Your task to perform on an android device: Turn off the flashlight Image 0: 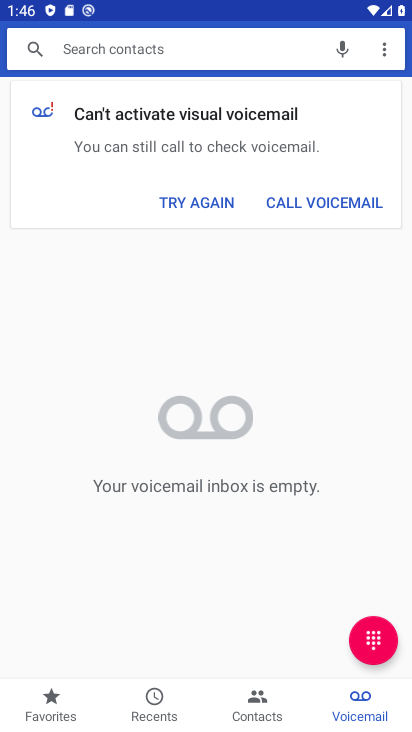
Step 0: press home button
Your task to perform on an android device: Turn off the flashlight Image 1: 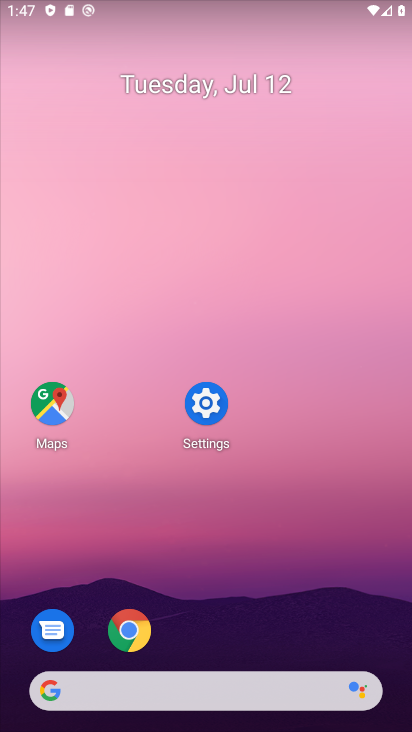
Step 1: click (195, 400)
Your task to perform on an android device: Turn off the flashlight Image 2: 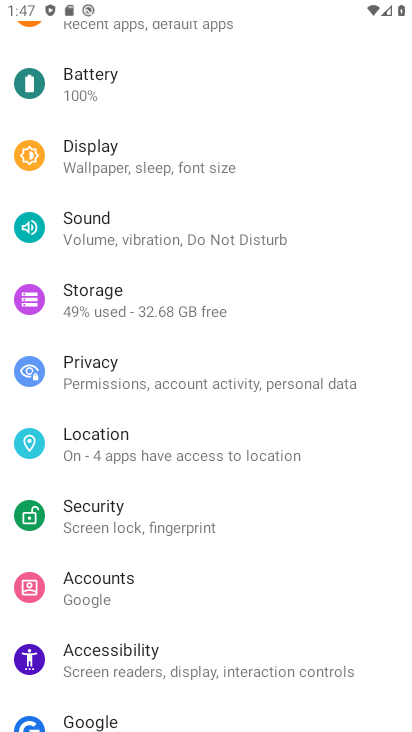
Step 2: click (92, 148)
Your task to perform on an android device: Turn off the flashlight Image 3: 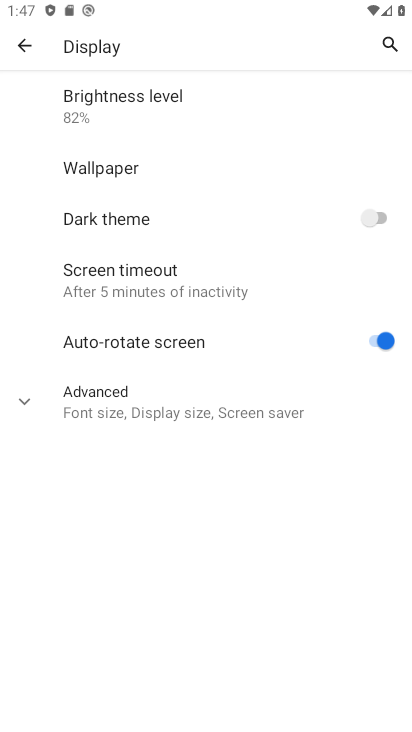
Step 3: click (20, 401)
Your task to perform on an android device: Turn off the flashlight Image 4: 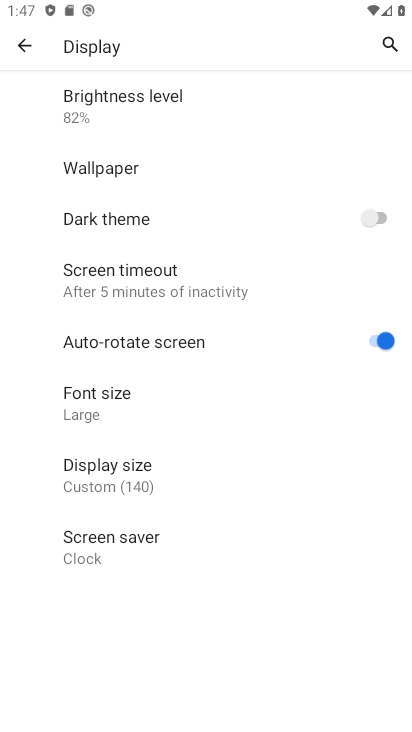
Step 4: click (82, 474)
Your task to perform on an android device: Turn off the flashlight Image 5: 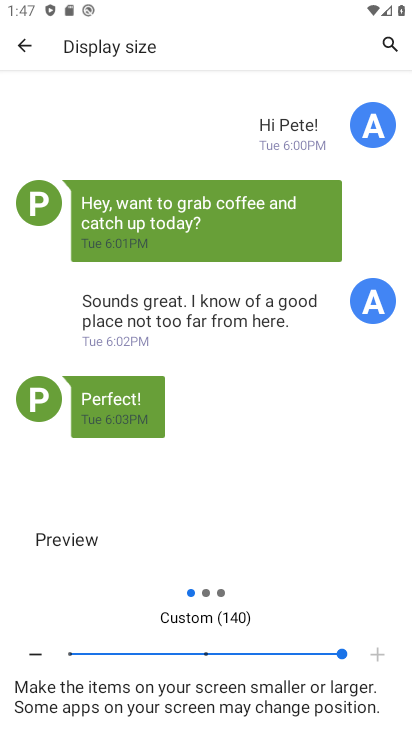
Step 5: click (201, 655)
Your task to perform on an android device: Turn off the flashlight Image 6: 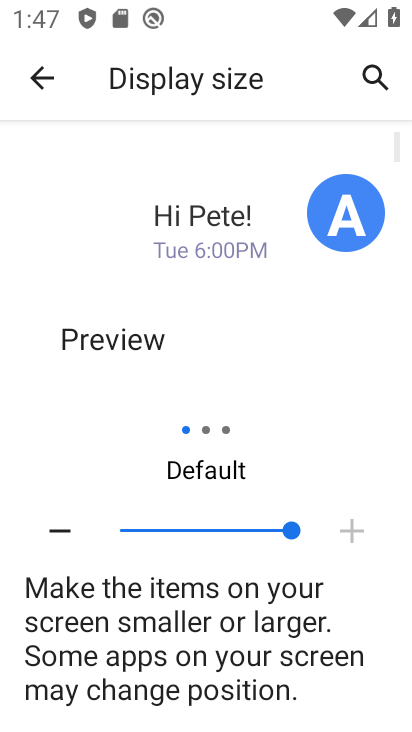
Step 6: click (169, 654)
Your task to perform on an android device: Turn off the flashlight Image 7: 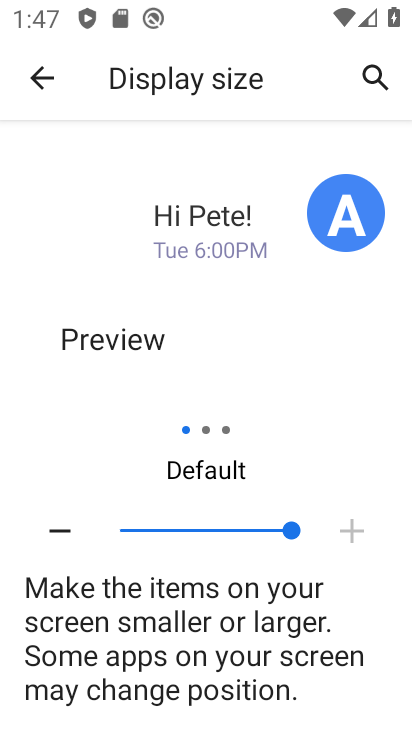
Step 7: click (240, 528)
Your task to perform on an android device: Turn off the flashlight Image 8: 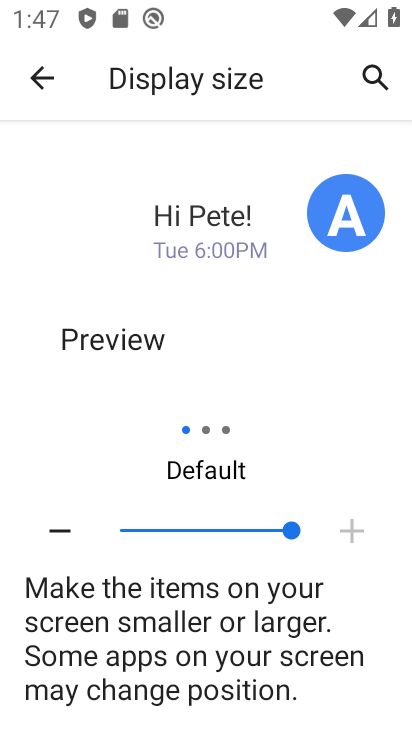
Step 8: click (292, 529)
Your task to perform on an android device: Turn off the flashlight Image 9: 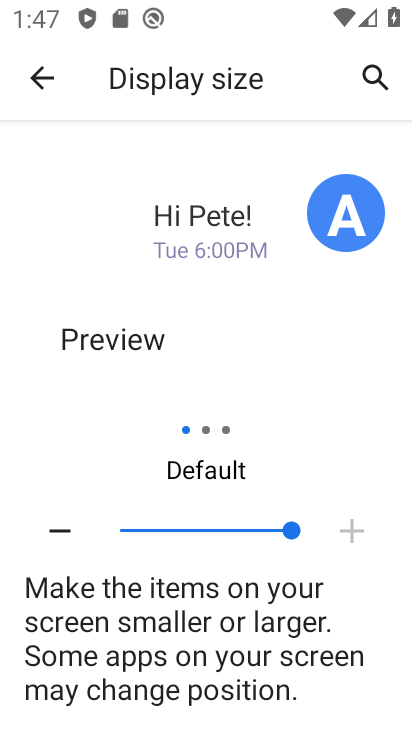
Step 9: drag from (287, 531) to (233, 530)
Your task to perform on an android device: Turn off the flashlight Image 10: 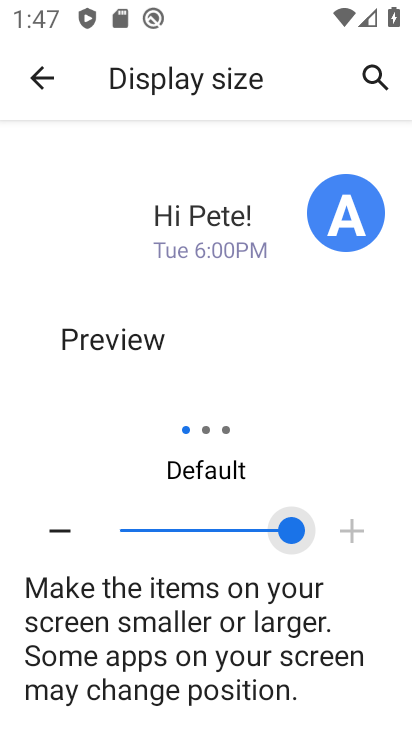
Step 10: click (233, 530)
Your task to perform on an android device: Turn off the flashlight Image 11: 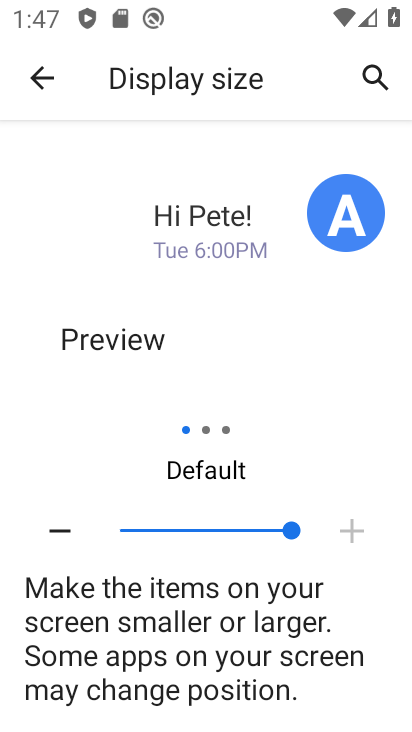
Step 11: click (233, 524)
Your task to perform on an android device: Turn off the flashlight Image 12: 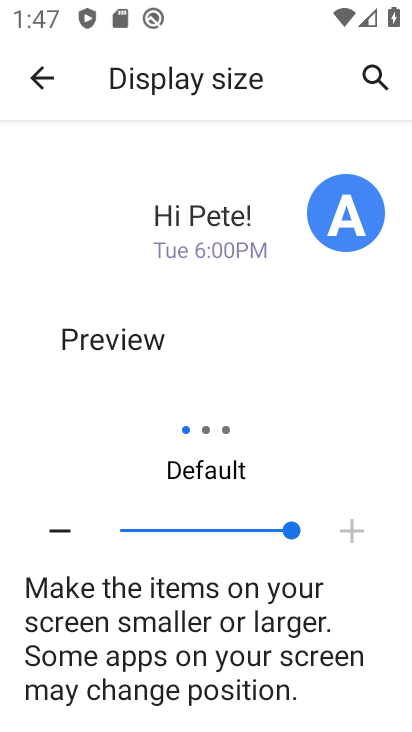
Step 12: click (45, 70)
Your task to perform on an android device: Turn off the flashlight Image 13: 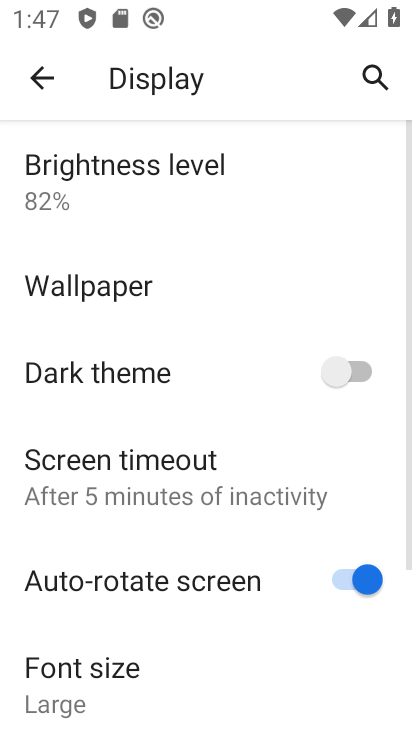
Step 13: click (45, 70)
Your task to perform on an android device: Turn off the flashlight Image 14: 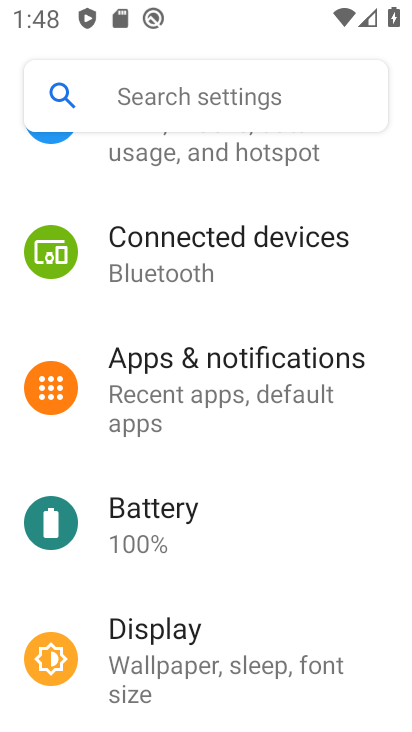
Step 14: click (174, 645)
Your task to perform on an android device: Turn off the flashlight Image 15: 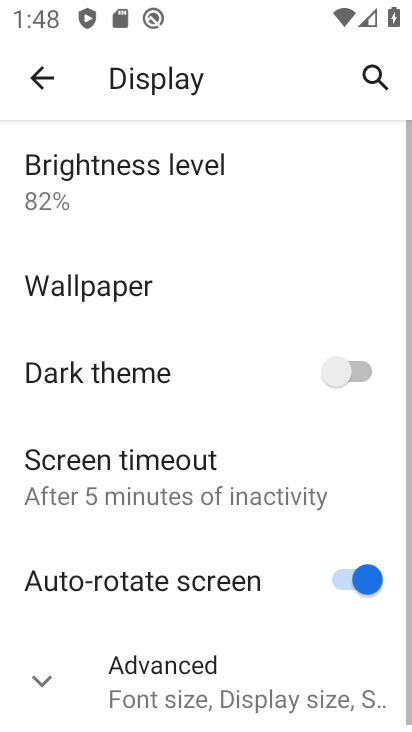
Step 15: task complete